Your task to perform on an android device: check storage Image 0: 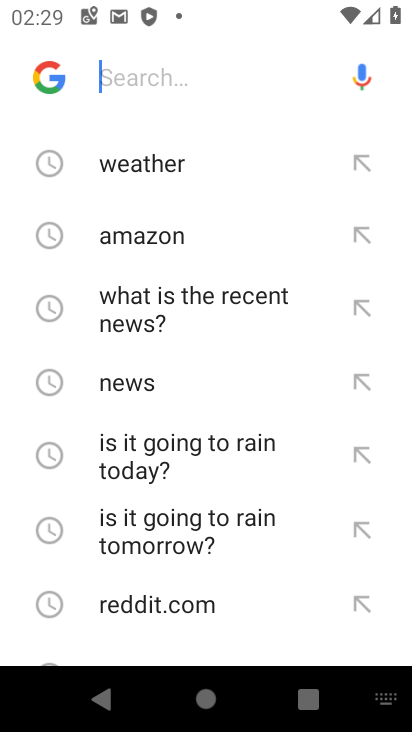
Step 0: press home button
Your task to perform on an android device: check storage Image 1: 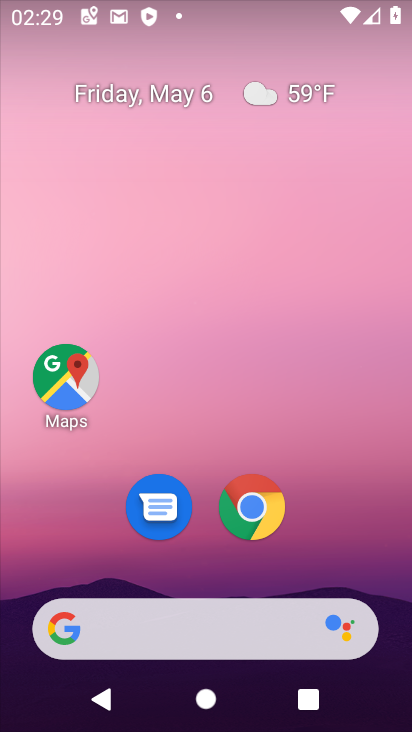
Step 1: drag from (334, 541) to (332, 100)
Your task to perform on an android device: check storage Image 2: 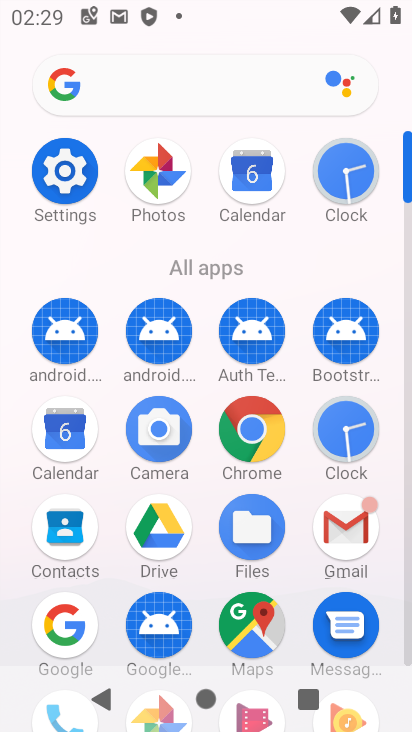
Step 2: click (55, 175)
Your task to perform on an android device: check storage Image 3: 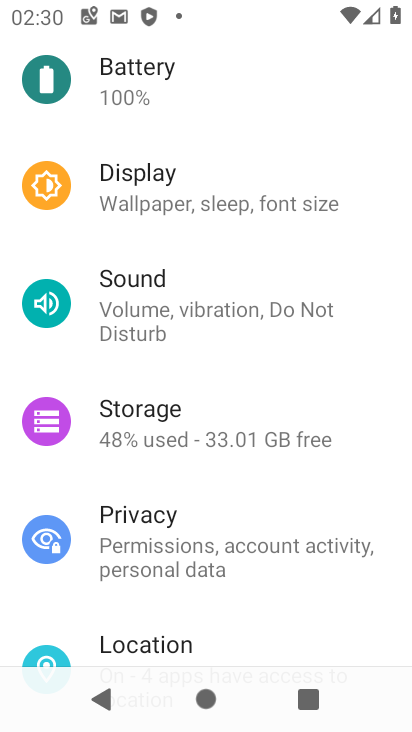
Step 3: click (199, 440)
Your task to perform on an android device: check storage Image 4: 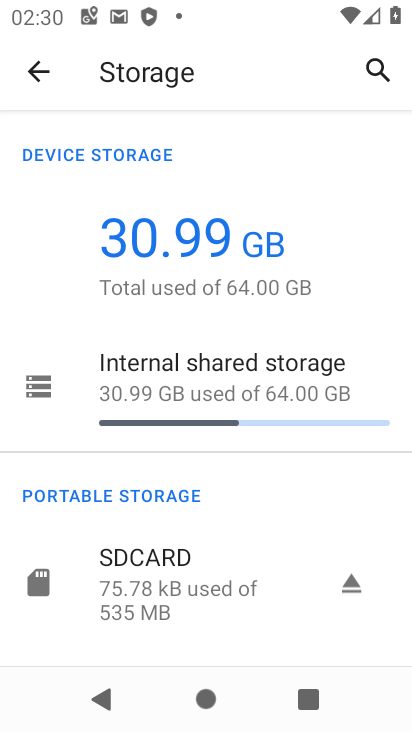
Step 4: task complete